Your task to perform on an android device: snooze an email in the gmail app Image 0: 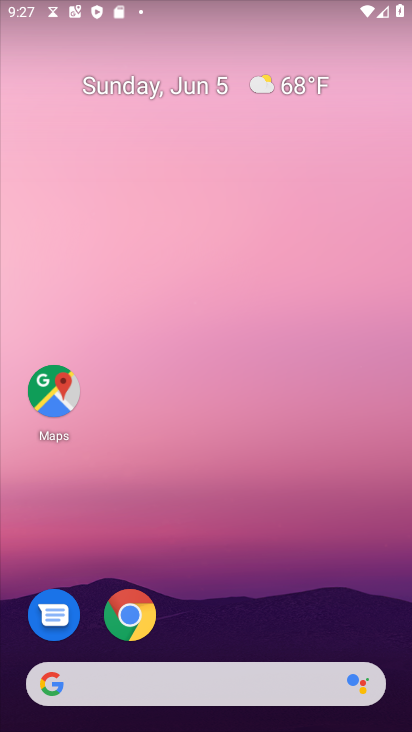
Step 0: drag from (139, 622) to (134, 110)
Your task to perform on an android device: snooze an email in the gmail app Image 1: 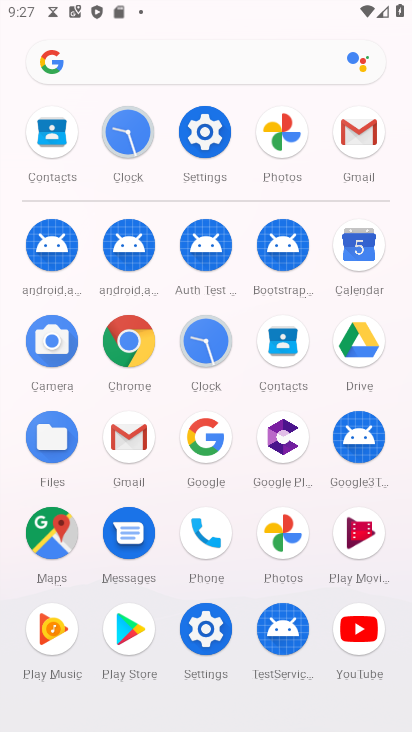
Step 1: click (367, 133)
Your task to perform on an android device: snooze an email in the gmail app Image 2: 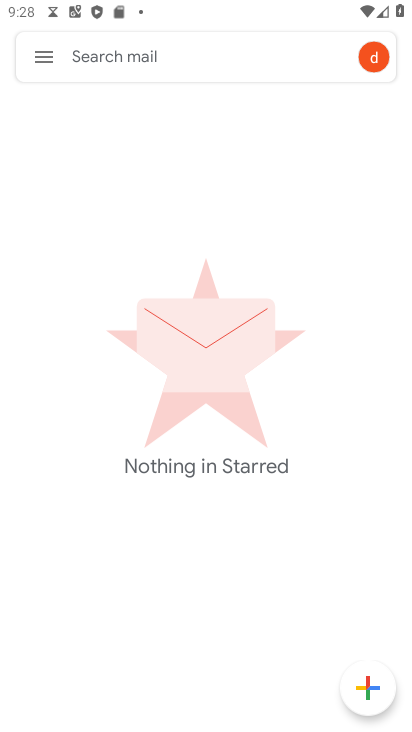
Step 2: click (48, 62)
Your task to perform on an android device: snooze an email in the gmail app Image 3: 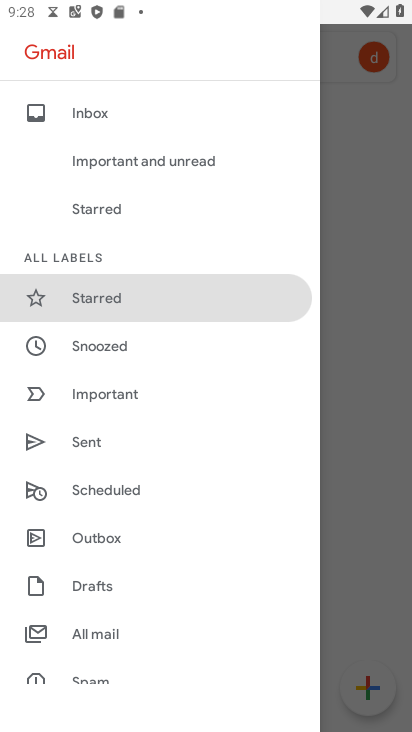
Step 3: click (118, 125)
Your task to perform on an android device: snooze an email in the gmail app Image 4: 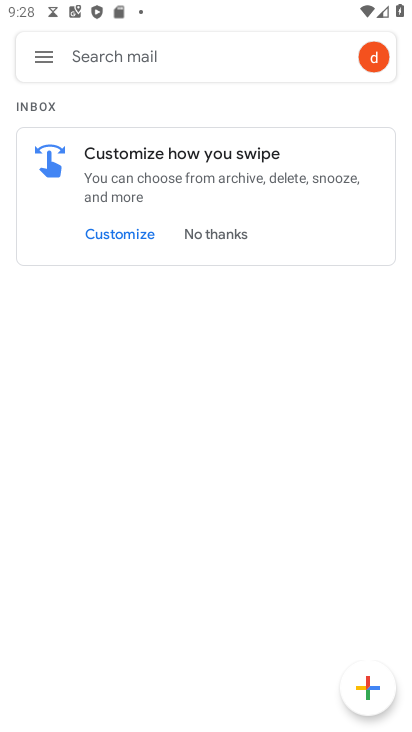
Step 4: click (47, 59)
Your task to perform on an android device: snooze an email in the gmail app Image 5: 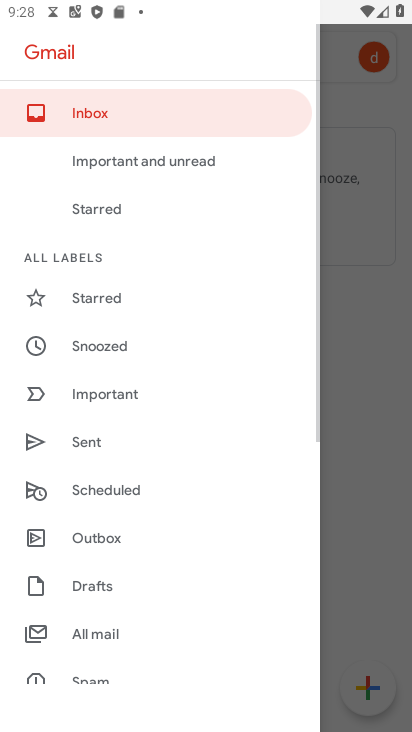
Step 5: drag from (172, 668) to (168, 297)
Your task to perform on an android device: snooze an email in the gmail app Image 6: 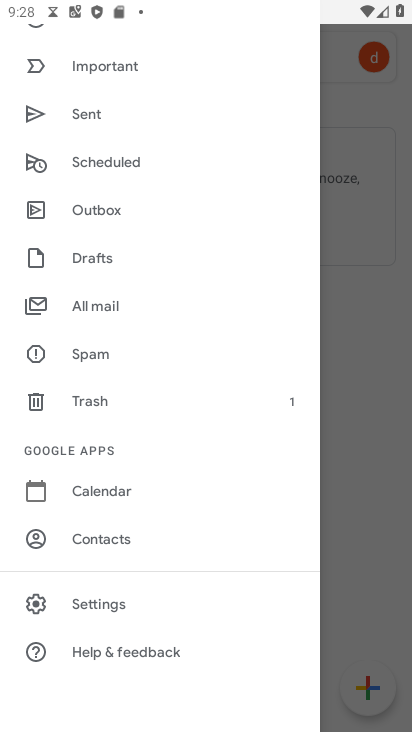
Step 6: click (115, 315)
Your task to perform on an android device: snooze an email in the gmail app Image 7: 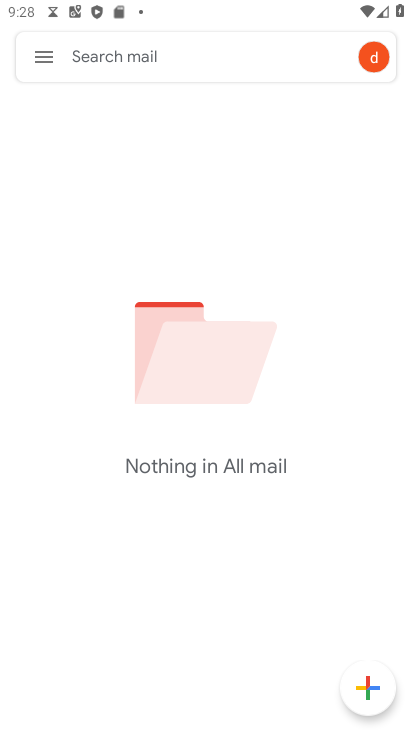
Step 7: task complete